Your task to perform on an android device: turn on notifications settings in the gmail app Image 0: 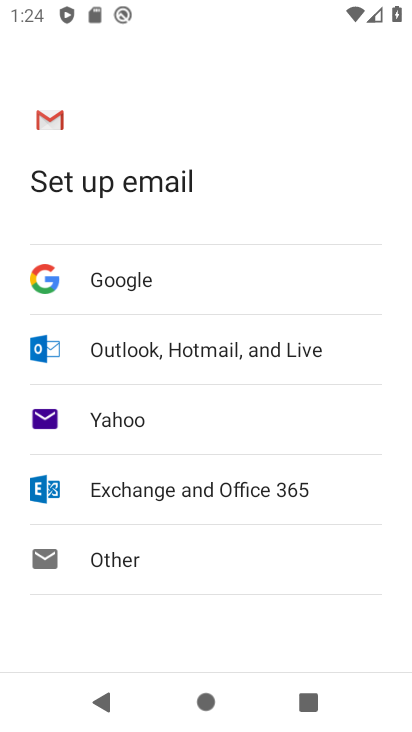
Step 0: press home button
Your task to perform on an android device: turn on notifications settings in the gmail app Image 1: 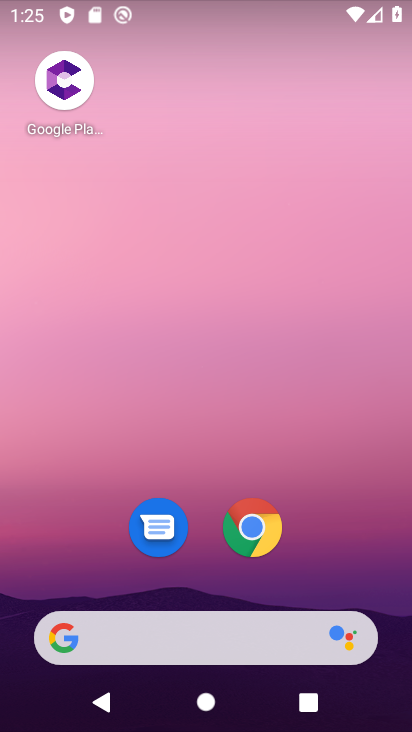
Step 1: drag from (154, 601) to (405, 99)
Your task to perform on an android device: turn on notifications settings in the gmail app Image 2: 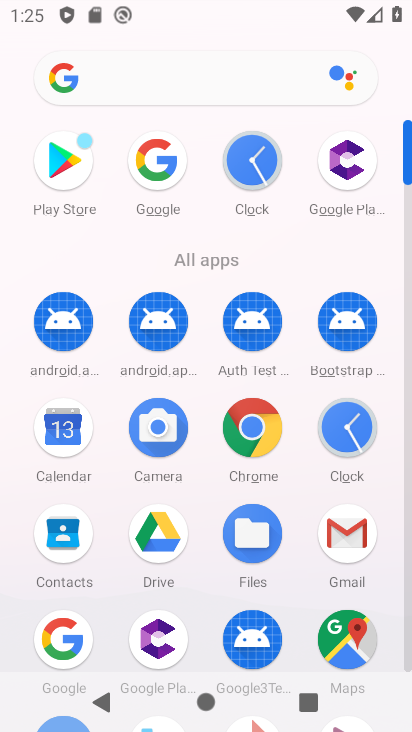
Step 2: click (353, 534)
Your task to perform on an android device: turn on notifications settings in the gmail app Image 3: 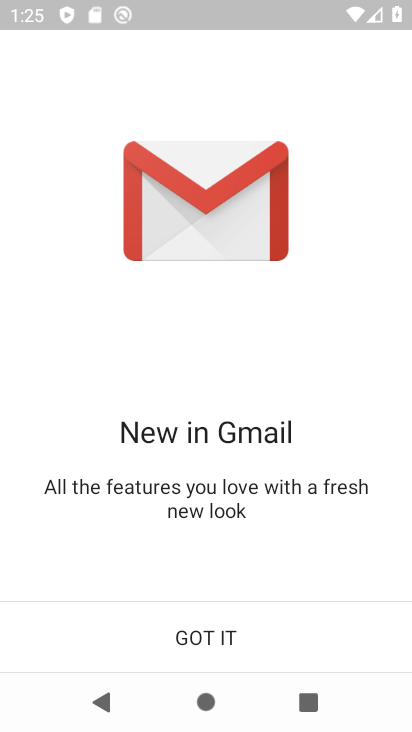
Step 3: click (200, 629)
Your task to perform on an android device: turn on notifications settings in the gmail app Image 4: 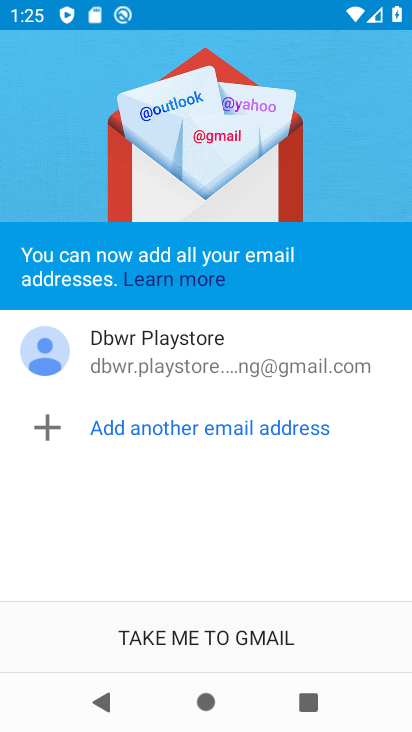
Step 4: click (197, 628)
Your task to perform on an android device: turn on notifications settings in the gmail app Image 5: 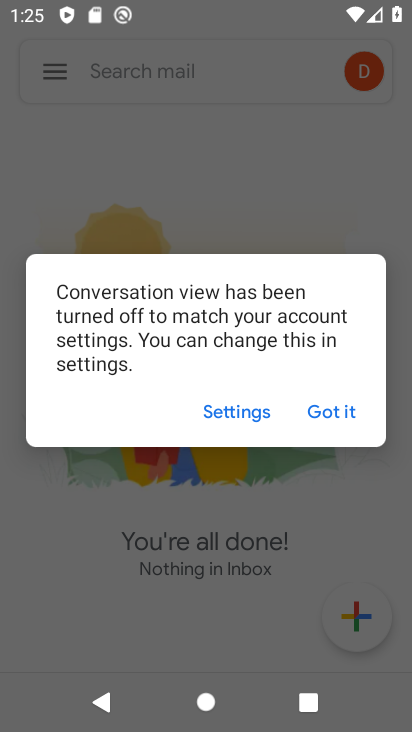
Step 5: click (349, 413)
Your task to perform on an android device: turn on notifications settings in the gmail app Image 6: 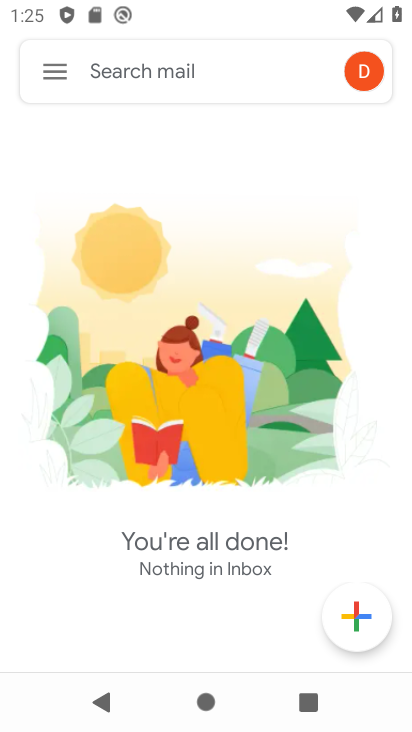
Step 6: click (66, 83)
Your task to perform on an android device: turn on notifications settings in the gmail app Image 7: 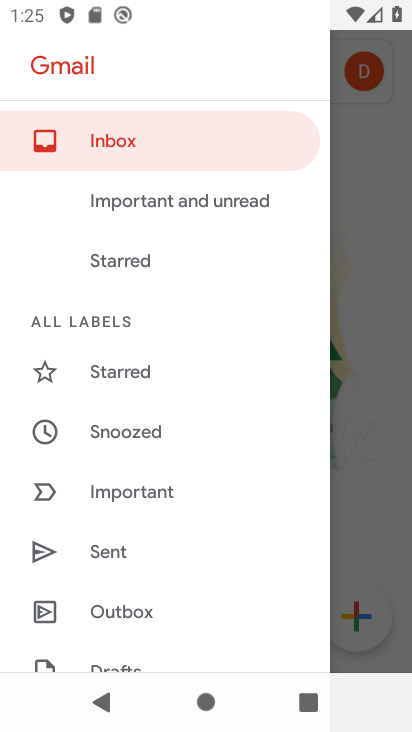
Step 7: drag from (160, 557) to (152, 167)
Your task to perform on an android device: turn on notifications settings in the gmail app Image 8: 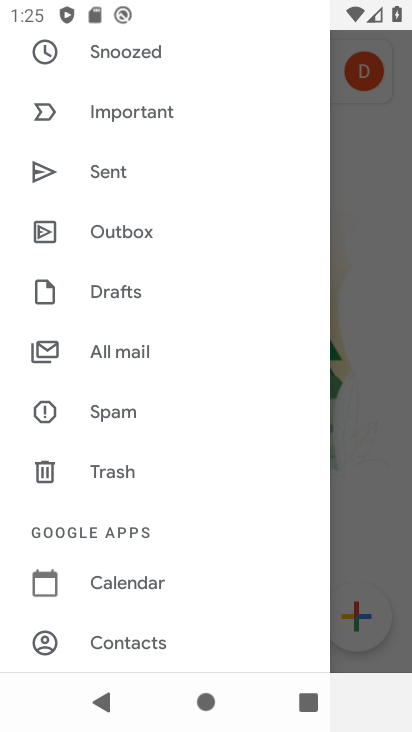
Step 8: drag from (159, 617) to (194, 249)
Your task to perform on an android device: turn on notifications settings in the gmail app Image 9: 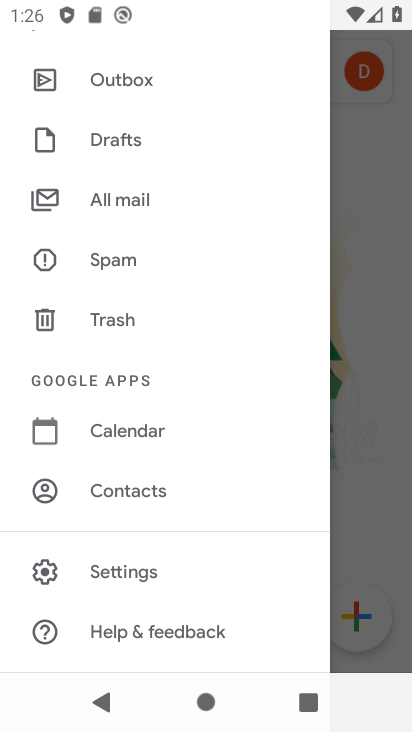
Step 9: click (192, 578)
Your task to perform on an android device: turn on notifications settings in the gmail app Image 10: 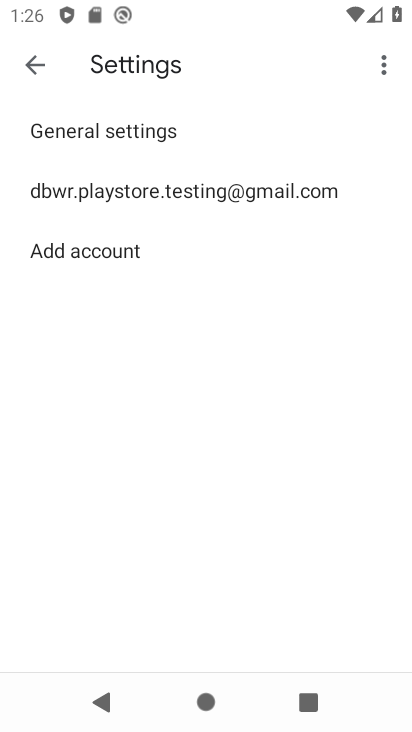
Step 10: click (238, 174)
Your task to perform on an android device: turn on notifications settings in the gmail app Image 11: 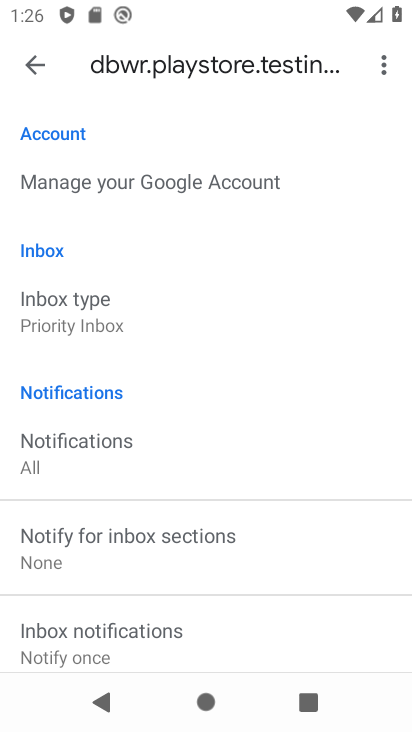
Step 11: click (127, 489)
Your task to perform on an android device: turn on notifications settings in the gmail app Image 12: 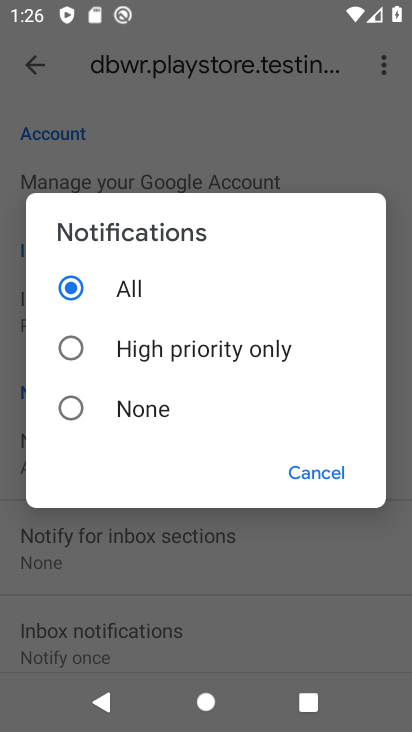
Step 12: task complete